Your task to perform on an android device: Show me recent news Image 0: 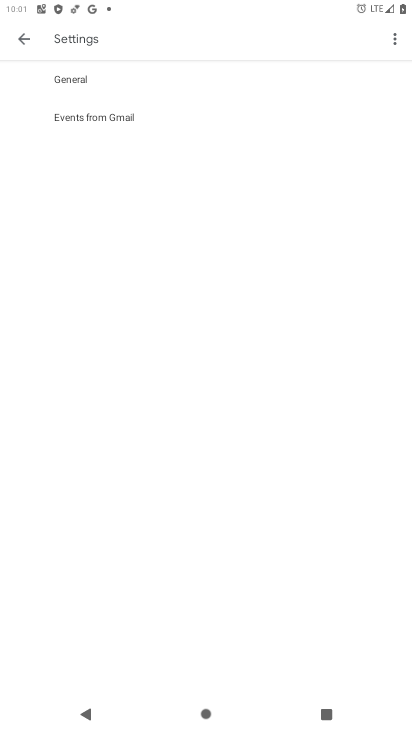
Step 0: press home button
Your task to perform on an android device: Show me recent news Image 1: 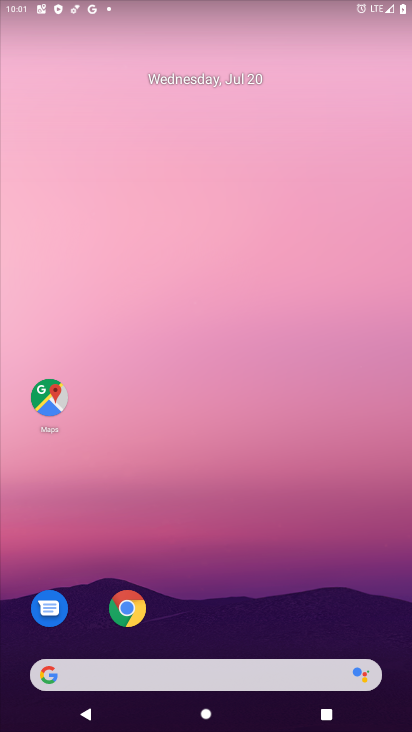
Step 1: task complete